Your task to perform on an android device: toggle improve location accuracy Image 0: 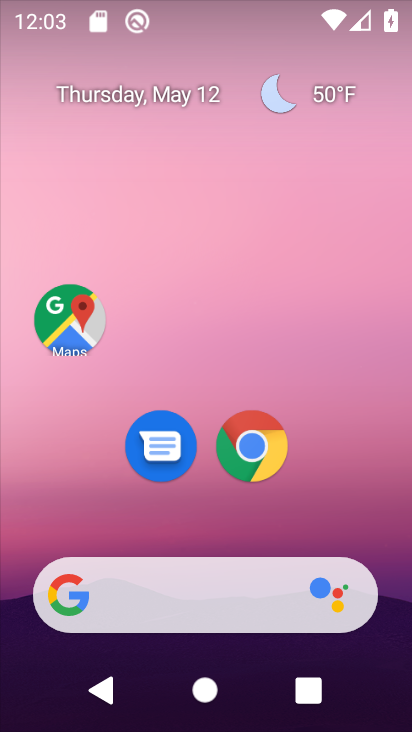
Step 0: drag from (289, 516) to (285, 157)
Your task to perform on an android device: toggle improve location accuracy Image 1: 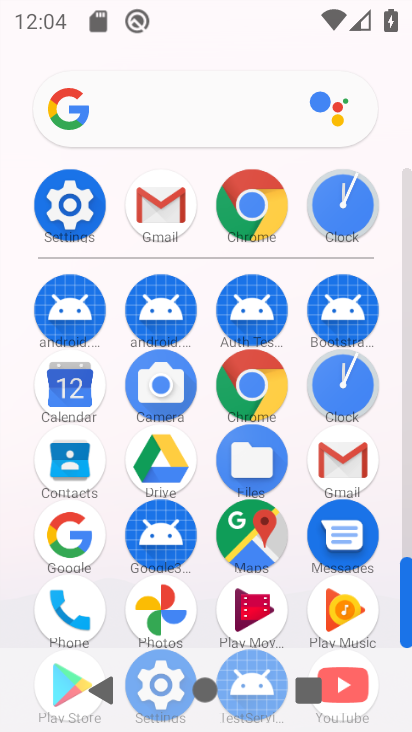
Step 1: click (80, 202)
Your task to perform on an android device: toggle improve location accuracy Image 2: 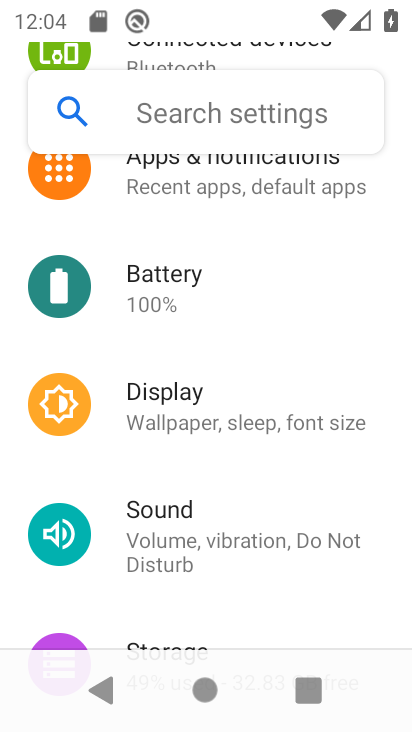
Step 2: drag from (276, 565) to (281, 327)
Your task to perform on an android device: toggle improve location accuracy Image 3: 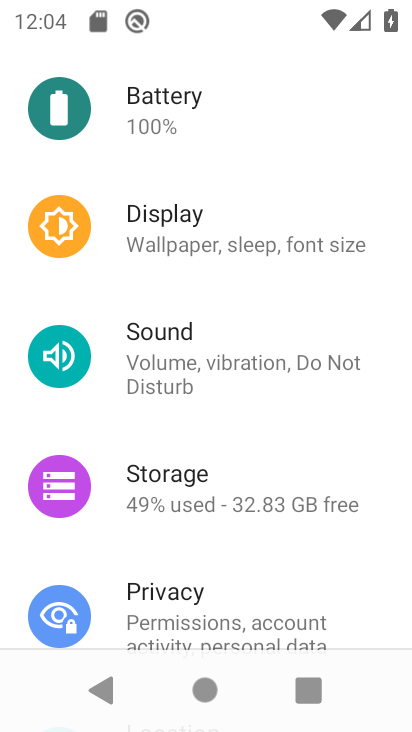
Step 3: drag from (286, 574) to (357, 157)
Your task to perform on an android device: toggle improve location accuracy Image 4: 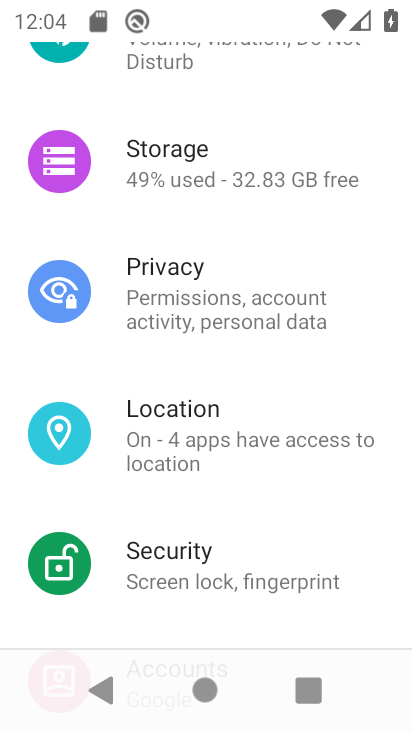
Step 4: click (257, 450)
Your task to perform on an android device: toggle improve location accuracy Image 5: 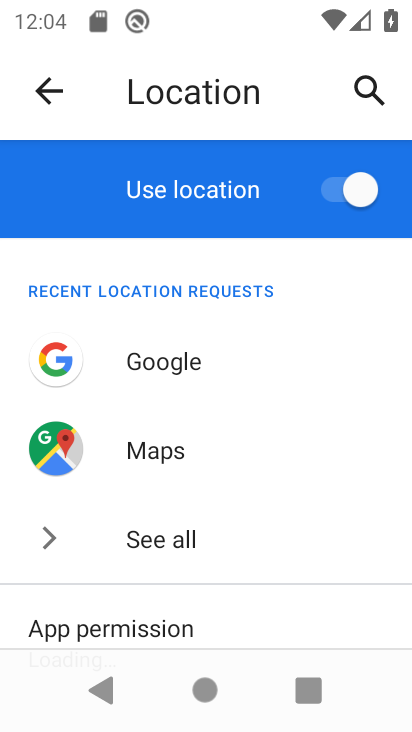
Step 5: drag from (320, 558) to (291, 235)
Your task to perform on an android device: toggle improve location accuracy Image 6: 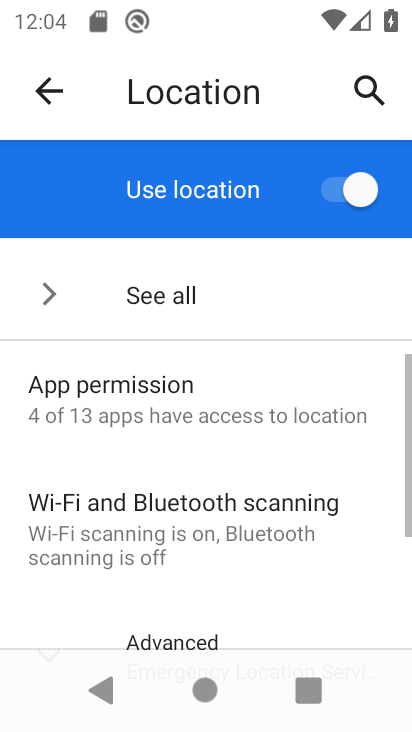
Step 6: drag from (242, 603) to (274, 303)
Your task to perform on an android device: toggle improve location accuracy Image 7: 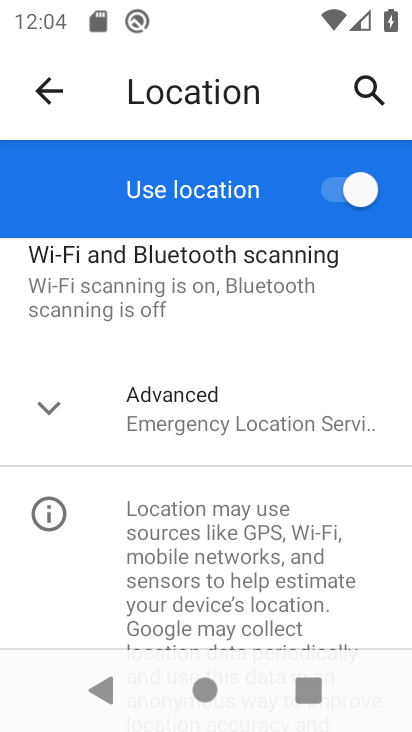
Step 7: click (239, 459)
Your task to perform on an android device: toggle improve location accuracy Image 8: 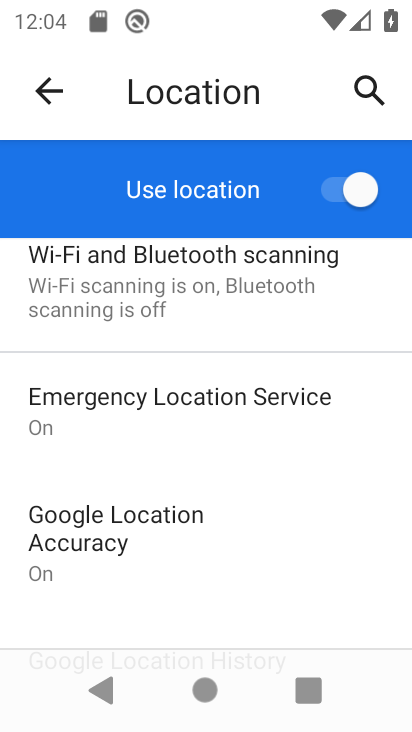
Step 8: click (131, 557)
Your task to perform on an android device: toggle improve location accuracy Image 9: 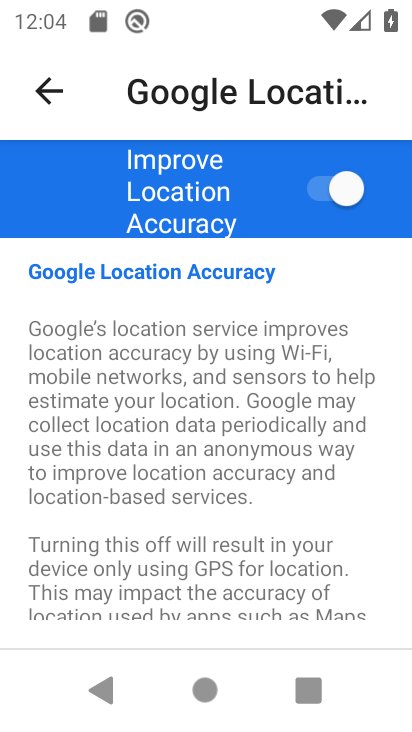
Step 9: click (323, 191)
Your task to perform on an android device: toggle improve location accuracy Image 10: 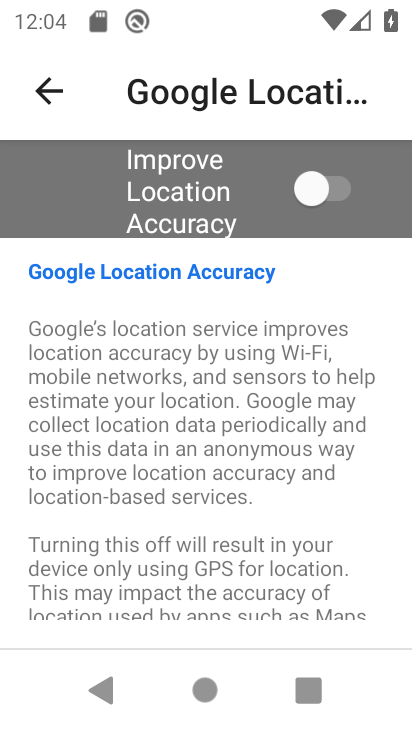
Step 10: task complete